Your task to perform on an android device: What's on my calendar tomorrow? Image 0: 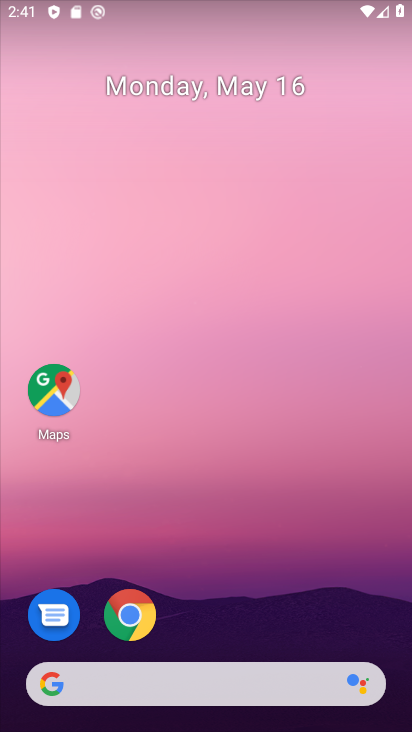
Step 0: drag from (339, 636) to (374, 5)
Your task to perform on an android device: What's on my calendar tomorrow? Image 1: 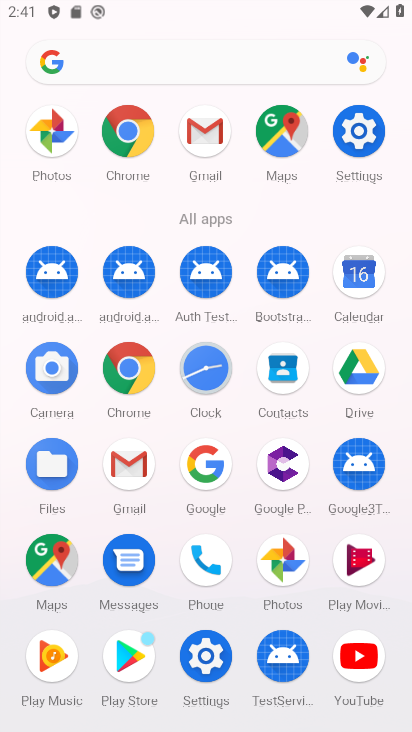
Step 1: click (356, 272)
Your task to perform on an android device: What's on my calendar tomorrow? Image 2: 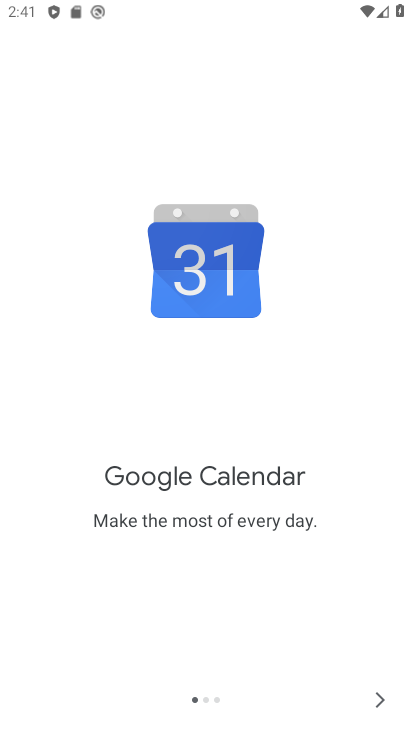
Step 2: click (377, 702)
Your task to perform on an android device: What's on my calendar tomorrow? Image 3: 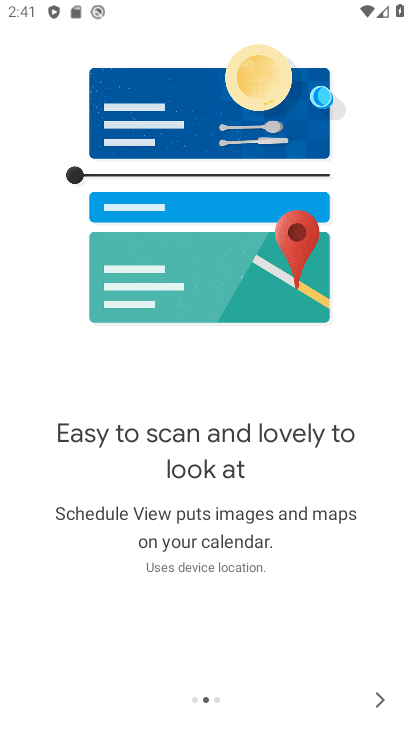
Step 3: click (377, 702)
Your task to perform on an android device: What's on my calendar tomorrow? Image 4: 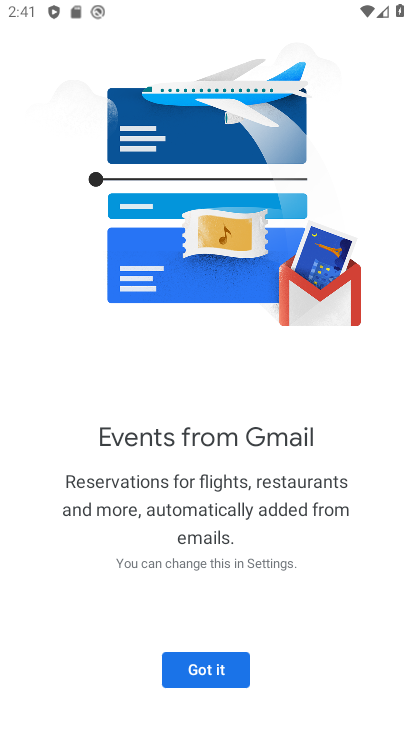
Step 4: click (217, 653)
Your task to perform on an android device: What's on my calendar tomorrow? Image 5: 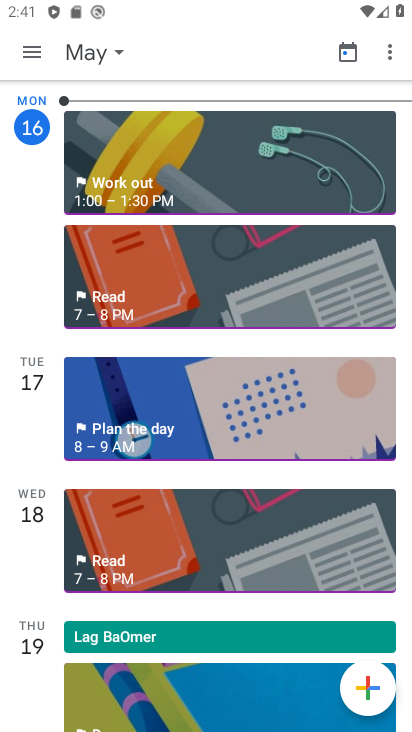
Step 5: click (164, 401)
Your task to perform on an android device: What's on my calendar tomorrow? Image 6: 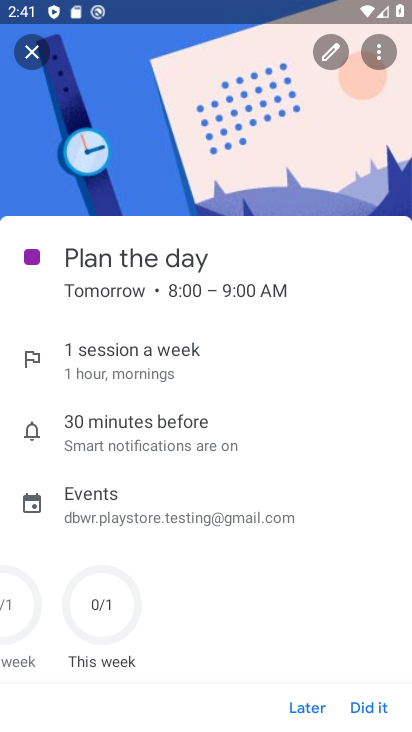
Step 6: task complete